Your task to perform on an android device: open chrome and create a bookmark for the current page Image 0: 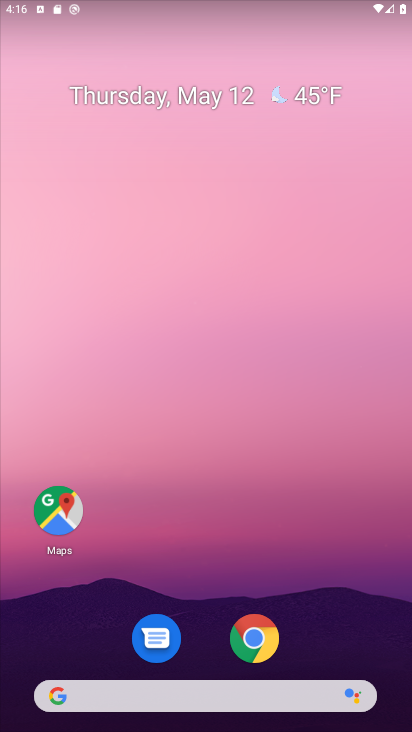
Step 0: click (267, 643)
Your task to perform on an android device: open chrome and create a bookmark for the current page Image 1: 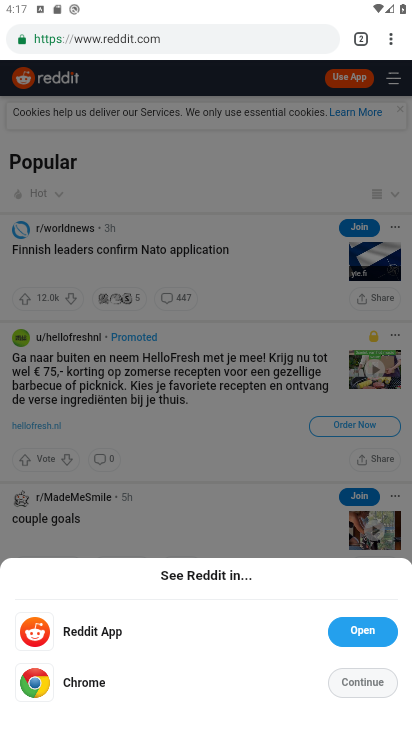
Step 1: click (391, 37)
Your task to perform on an android device: open chrome and create a bookmark for the current page Image 2: 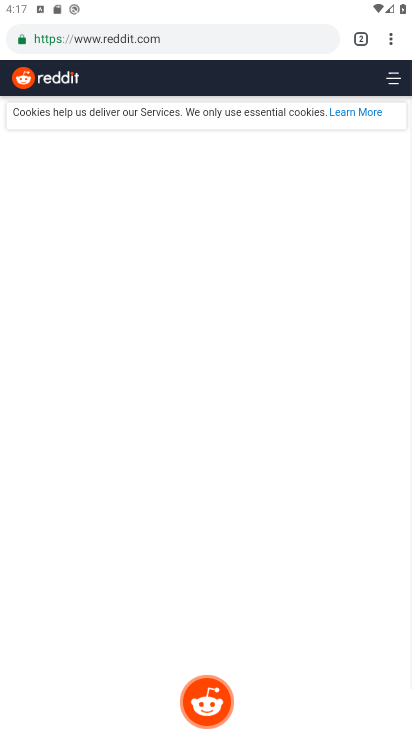
Step 2: click (389, 39)
Your task to perform on an android device: open chrome and create a bookmark for the current page Image 3: 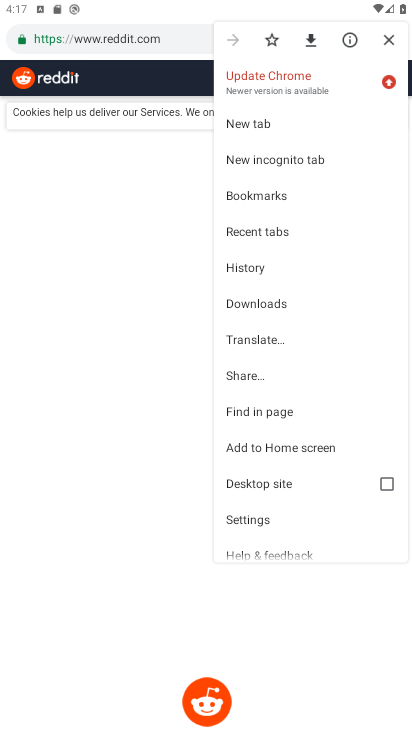
Step 3: click (275, 37)
Your task to perform on an android device: open chrome and create a bookmark for the current page Image 4: 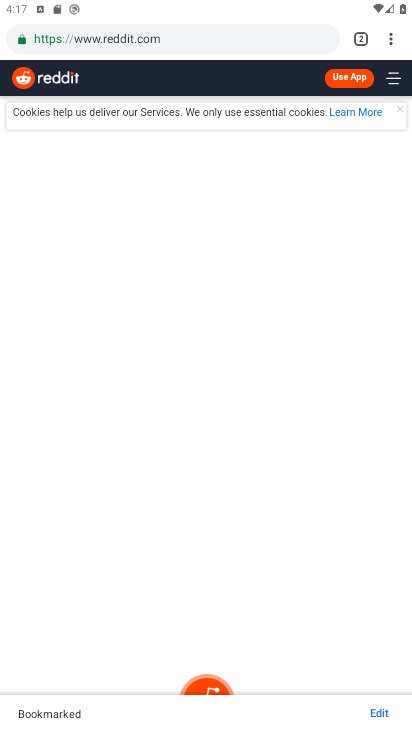
Step 4: task complete